Your task to perform on an android device: Show the shopping cart on ebay. Add "duracell triple a" to the cart on ebay Image 0: 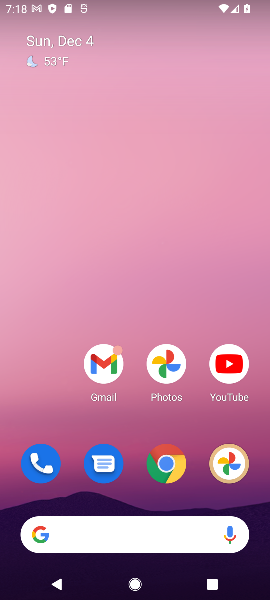
Step 0: click (141, 541)
Your task to perform on an android device: Show the shopping cart on ebay. Add "duracell triple a" to the cart on ebay Image 1: 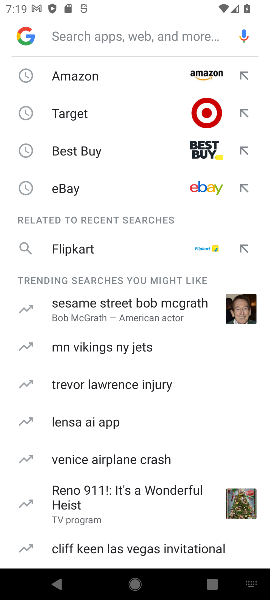
Step 1: click (109, 185)
Your task to perform on an android device: Show the shopping cart on ebay. Add "duracell triple a" to the cart on ebay Image 2: 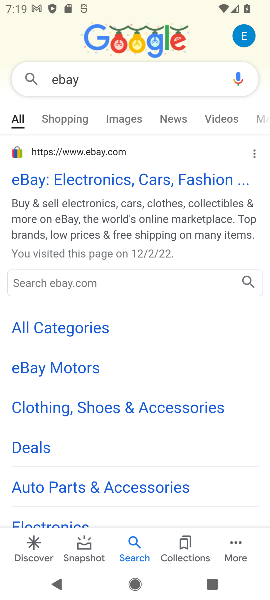
Step 2: click (87, 181)
Your task to perform on an android device: Show the shopping cart on ebay. Add "duracell triple a" to the cart on ebay Image 3: 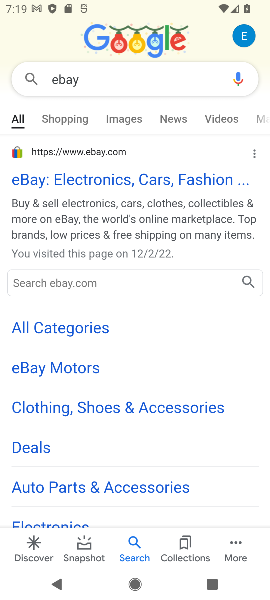
Step 3: click (87, 181)
Your task to perform on an android device: Show the shopping cart on ebay. Add "duracell triple a" to the cart on ebay Image 4: 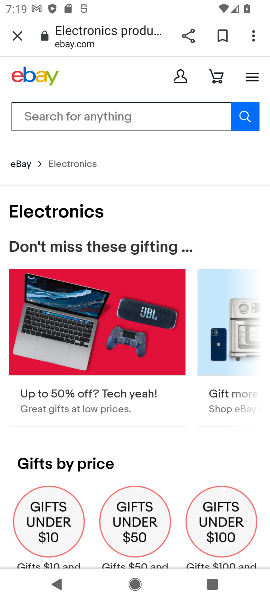
Step 4: click (66, 111)
Your task to perform on an android device: Show the shopping cart on ebay. Add "duracell triple a" to the cart on ebay Image 5: 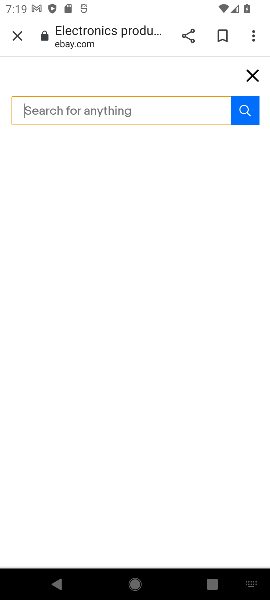
Step 5: type "duracell triple a"
Your task to perform on an android device: Show the shopping cart on ebay. Add "duracell triple a" to the cart on ebay Image 6: 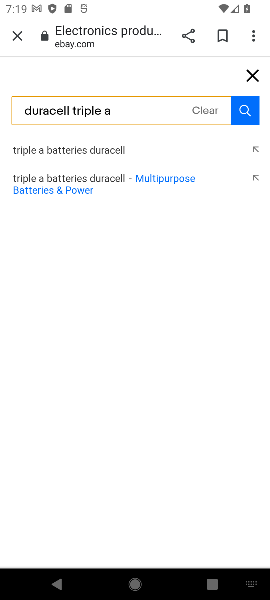
Step 6: click (240, 107)
Your task to perform on an android device: Show the shopping cart on ebay. Add "duracell triple a" to the cart on ebay Image 7: 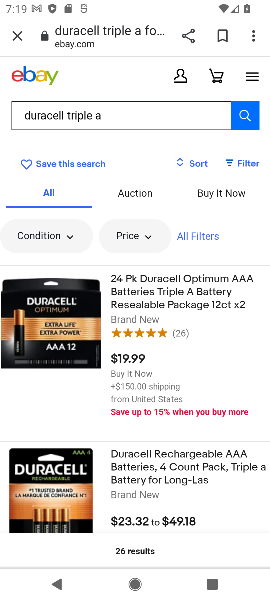
Step 7: click (150, 297)
Your task to perform on an android device: Show the shopping cart on ebay. Add "duracell triple a" to the cart on ebay Image 8: 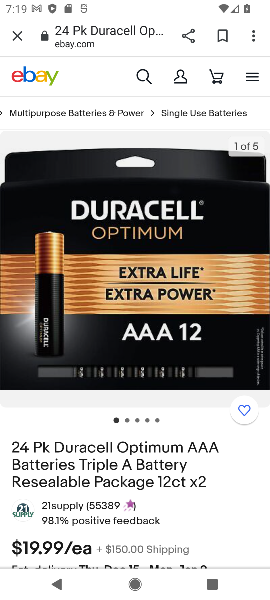
Step 8: task complete